Your task to perform on an android device: Open settings on Google Maps Image 0: 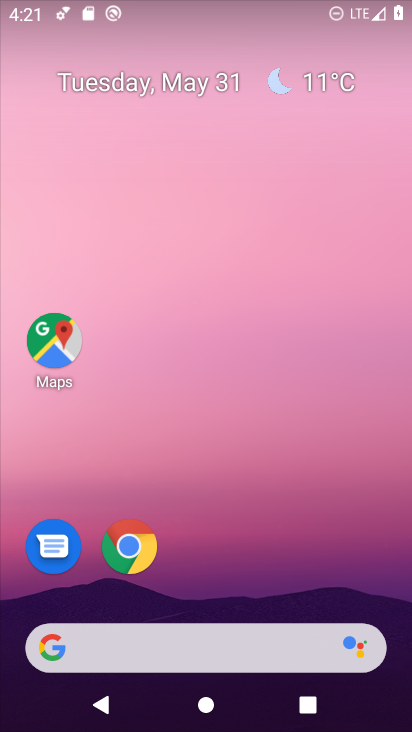
Step 0: click (49, 348)
Your task to perform on an android device: Open settings on Google Maps Image 1: 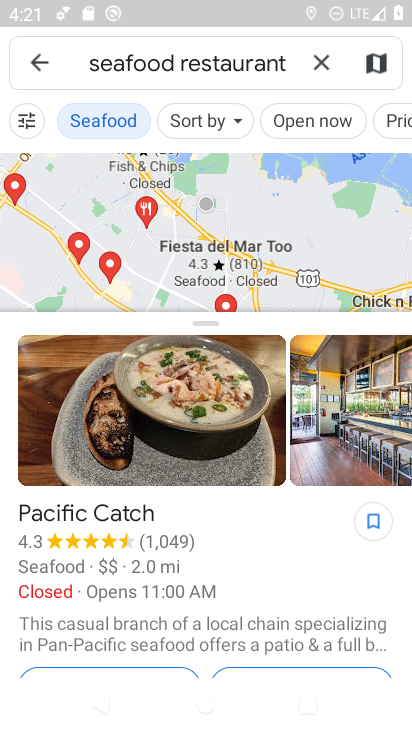
Step 1: click (35, 63)
Your task to perform on an android device: Open settings on Google Maps Image 2: 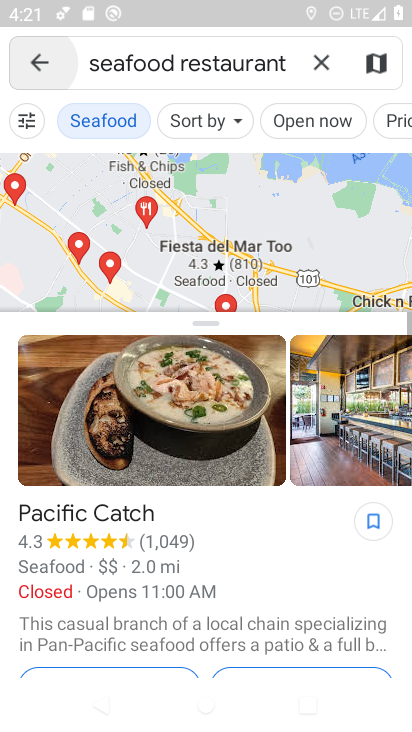
Step 2: click (38, 56)
Your task to perform on an android device: Open settings on Google Maps Image 3: 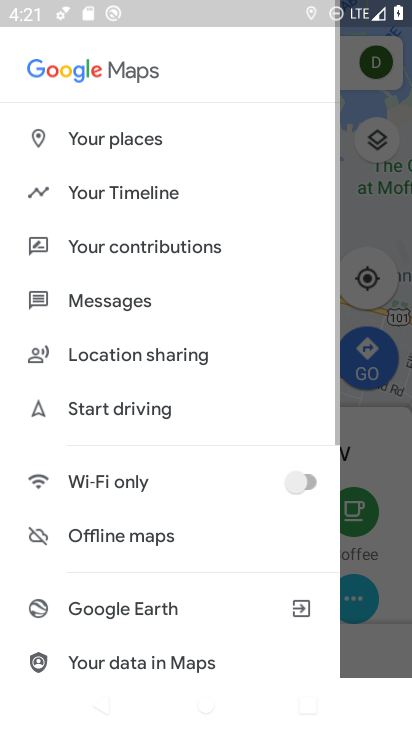
Step 3: click (38, 56)
Your task to perform on an android device: Open settings on Google Maps Image 4: 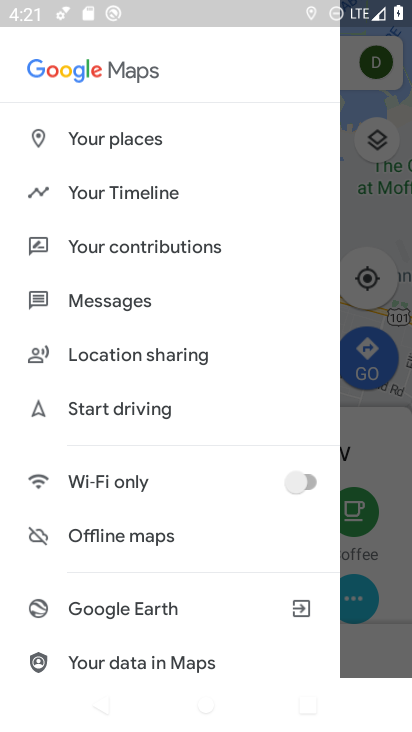
Step 4: drag from (179, 567) to (106, 12)
Your task to perform on an android device: Open settings on Google Maps Image 5: 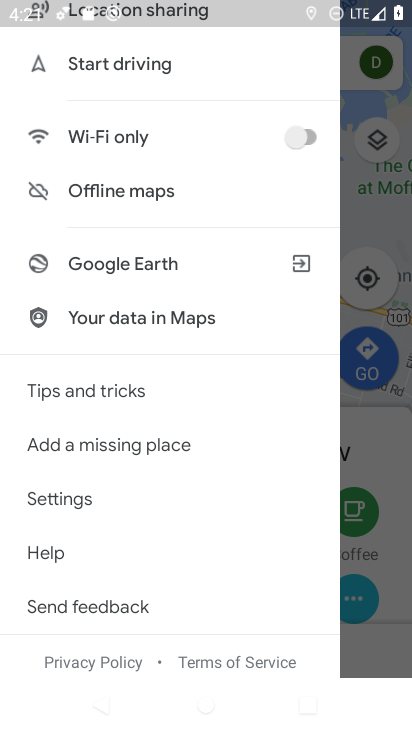
Step 5: click (90, 494)
Your task to perform on an android device: Open settings on Google Maps Image 6: 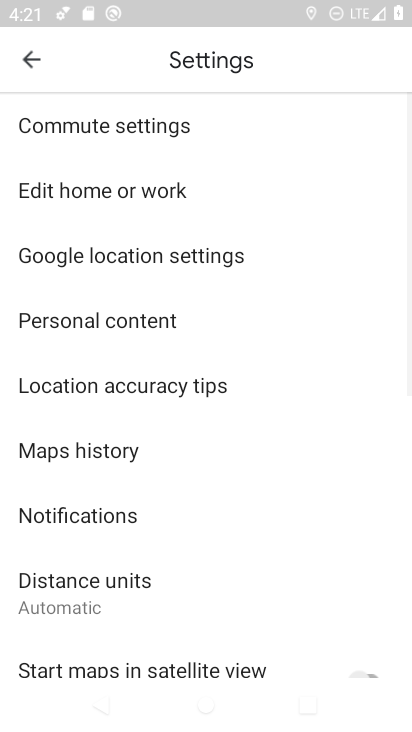
Step 6: task complete